Your task to perform on an android device: Check the news Image 0: 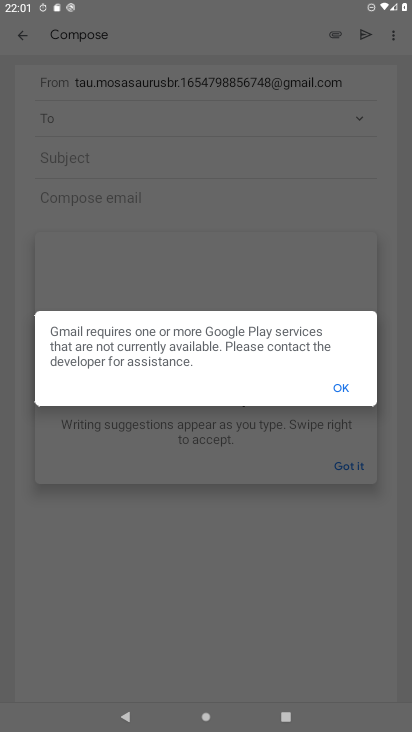
Step 0: press home button
Your task to perform on an android device: Check the news Image 1: 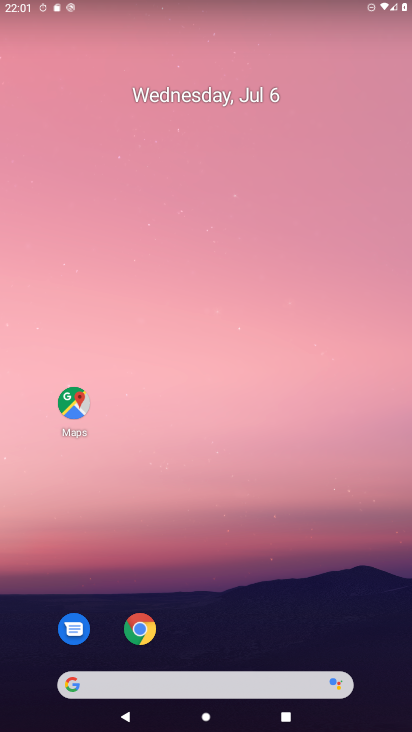
Step 1: task complete